Your task to perform on an android device: all mails in gmail Image 0: 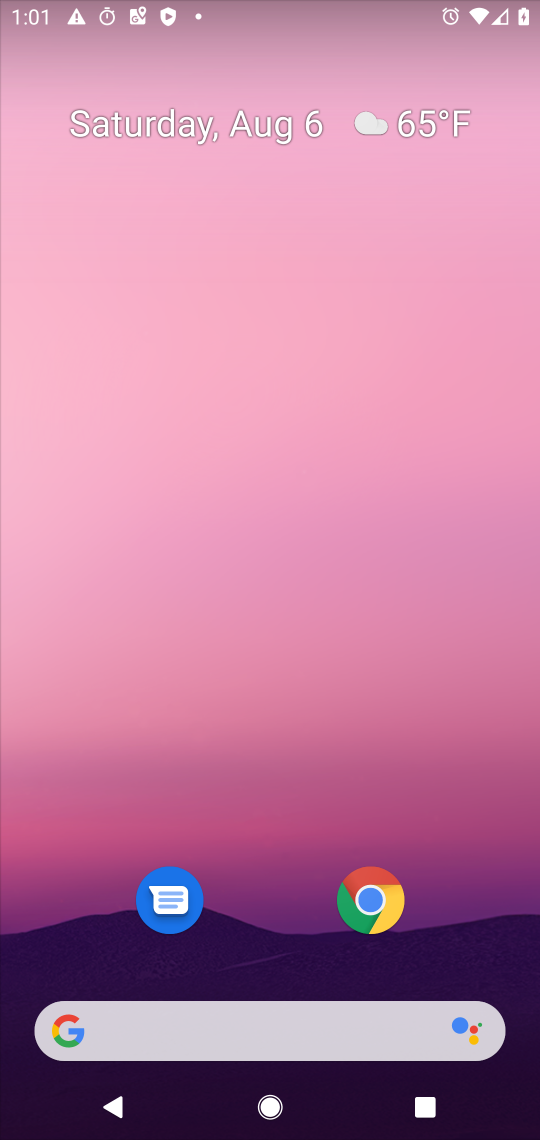
Step 0: drag from (264, 941) to (314, 135)
Your task to perform on an android device: all mails in gmail Image 1: 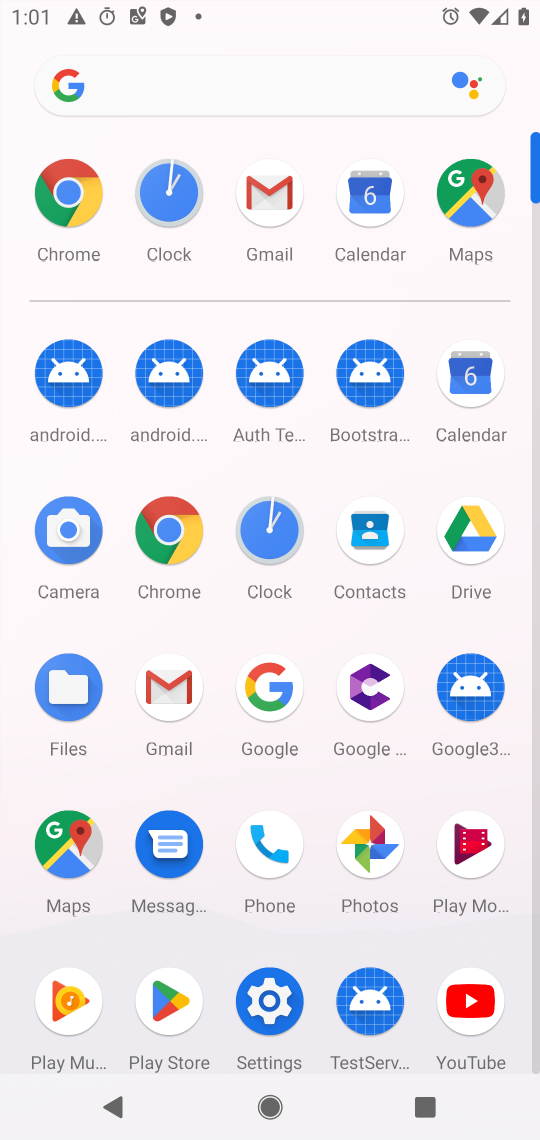
Step 1: click (171, 706)
Your task to perform on an android device: all mails in gmail Image 2: 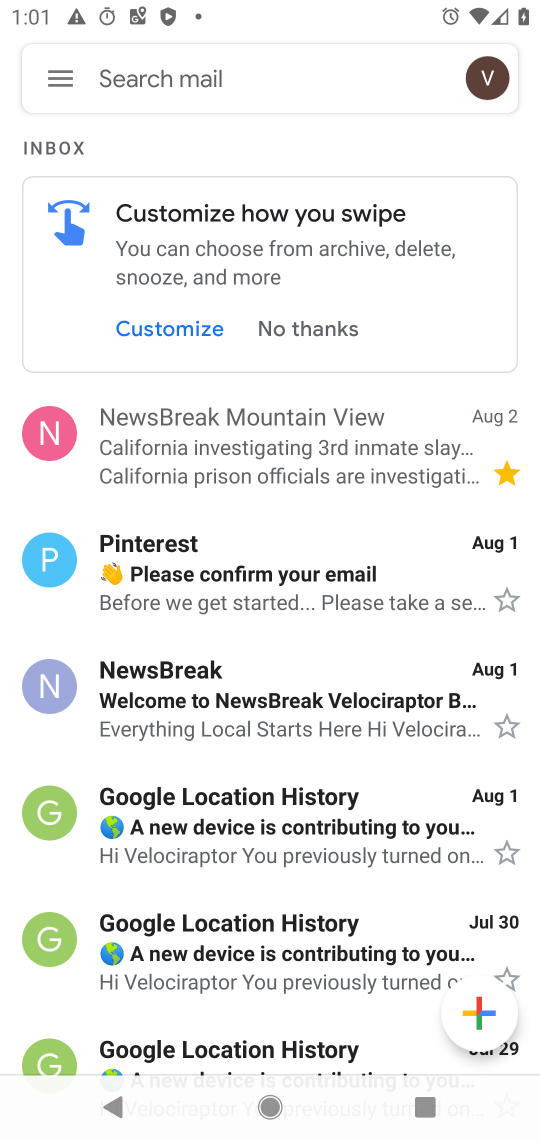
Step 2: click (57, 70)
Your task to perform on an android device: all mails in gmail Image 3: 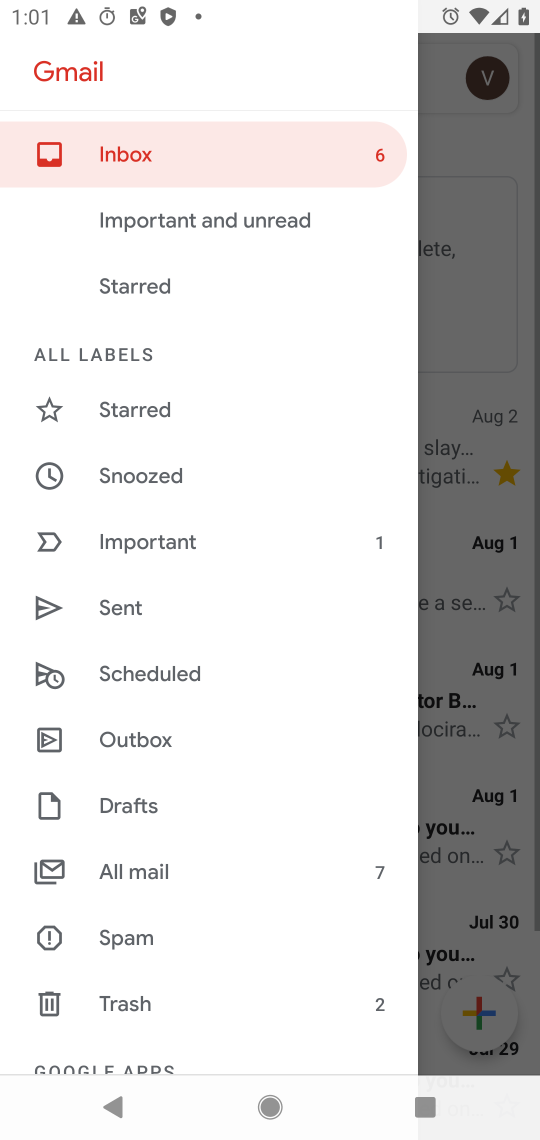
Step 3: click (140, 870)
Your task to perform on an android device: all mails in gmail Image 4: 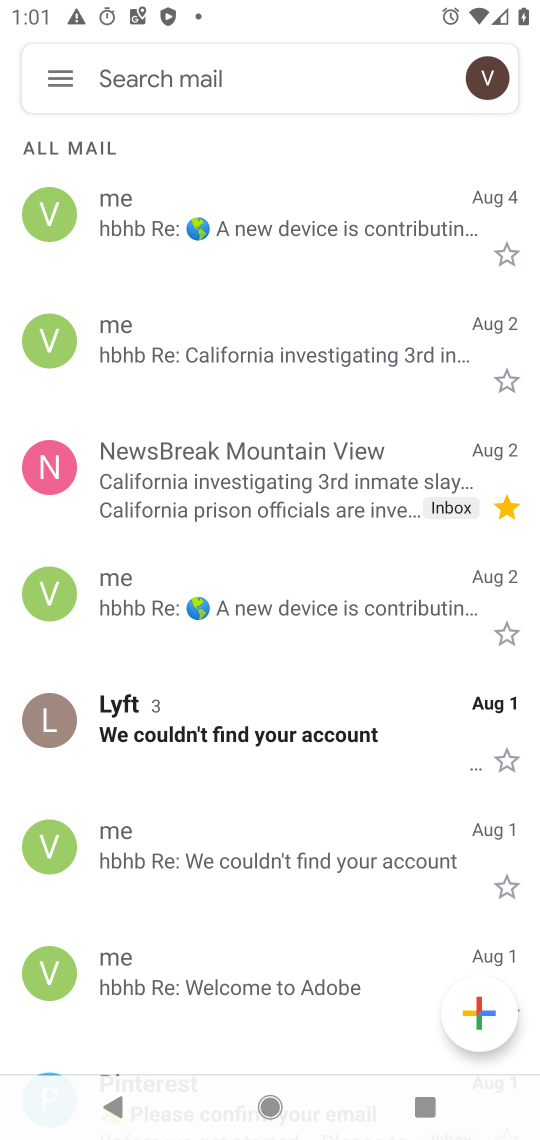
Step 4: task complete